Your task to perform on an android device: See recent photos Image 0: 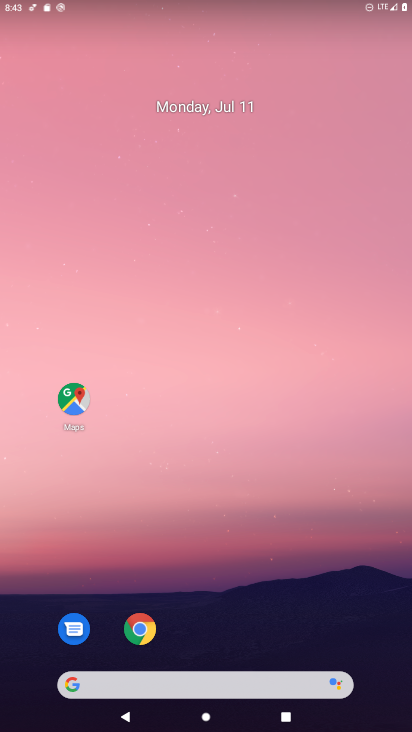
Step 0: drag from (202, 647) to (213, 159)
Your task to perform on an android device: See recent photos Image 1: 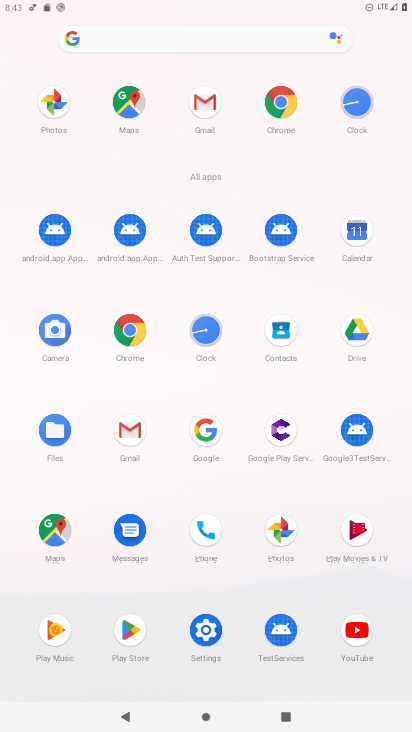
Step 1: click (62, 103)
Your task to perform on an android device: See recent photos Image 2: 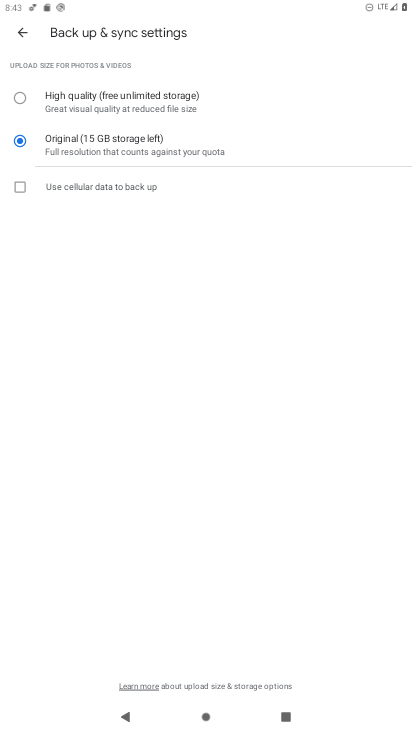
Step 2: click (27, 41)
Your task to perform on an android device: See recent photos Image 3: 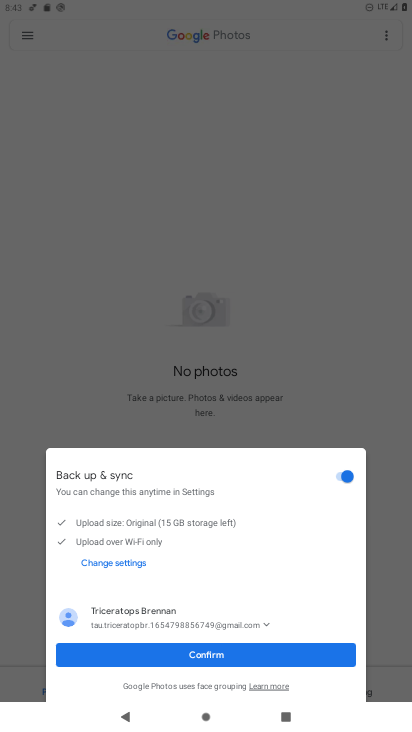
Step 3: click (214, 656)
Your task to perform on an android device: See recent photos Image 4: 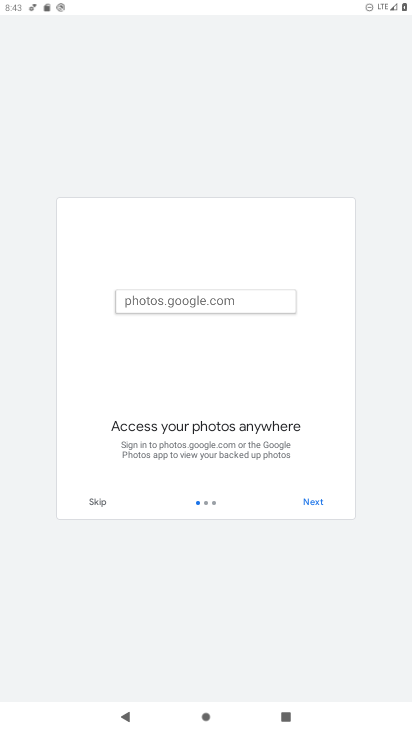
Step 4: click (315, 499)
Your task to perform on an android device: See recent photos Image 5: 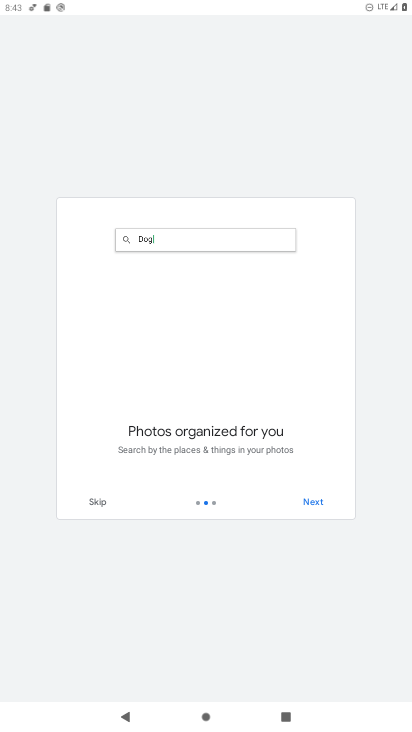
Step 5: click (315, 499)
Your task to perform on an android device: See recent photos Image 6: 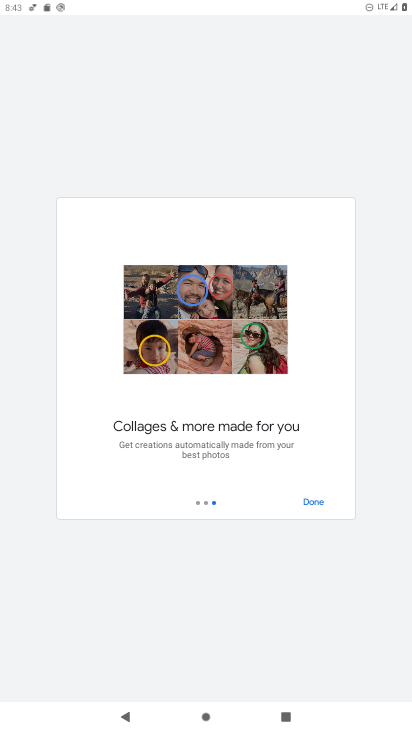
Step 6: click (315, 499)
Your task to perform on an android device: See recent photos Image 7: 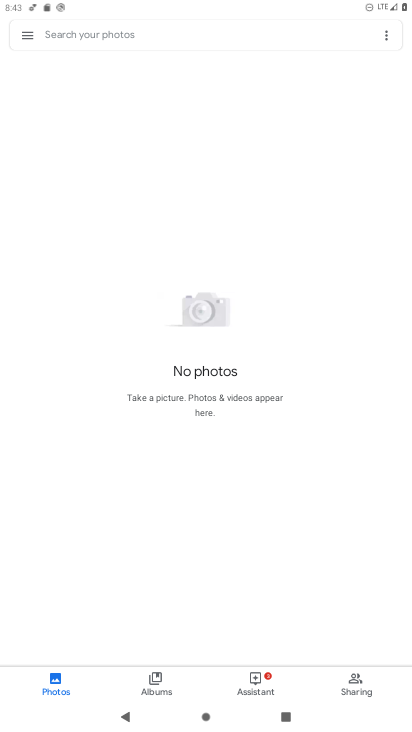
Step 7: task complete